Your task to perform on an android device: Play the latest video from the Washington Post Image 0: 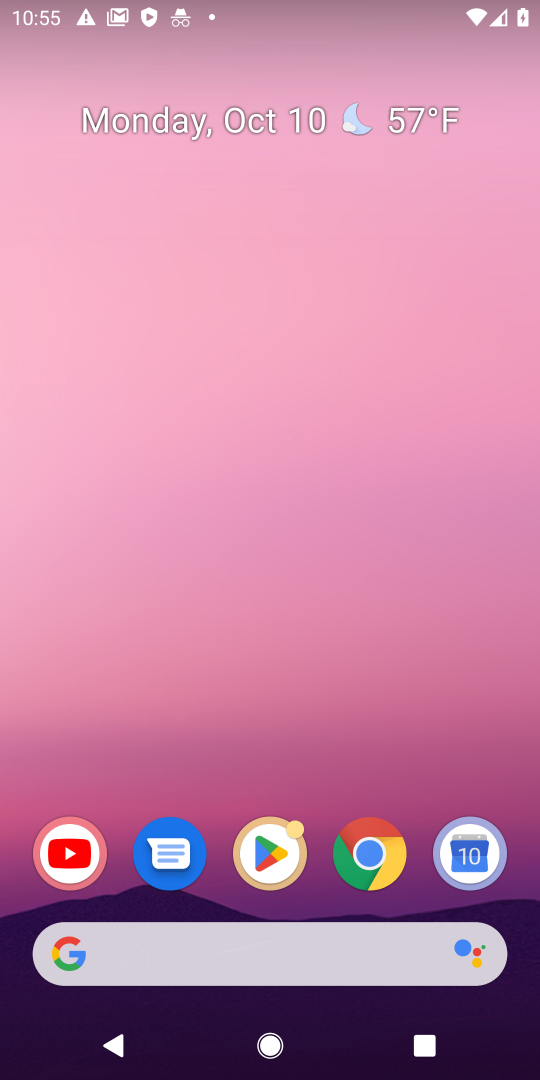
Step 0: press home button
Your task to perform on an android device: Play the latest video from the Washington Post Image 1: 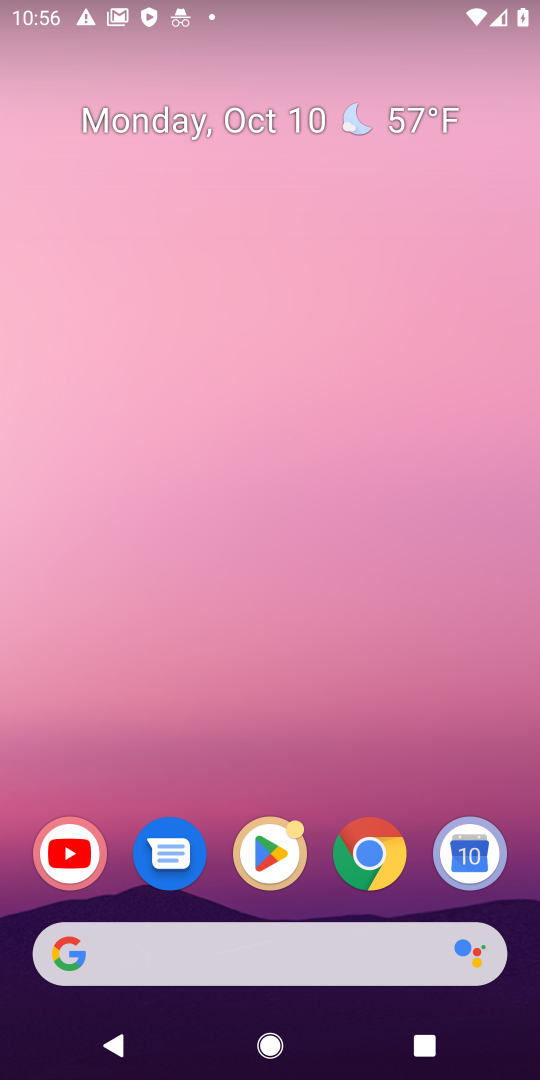
Step 1: click (262, 956)
Your task to perform on an android device: Play the latest video from the Washington Post Image 2: 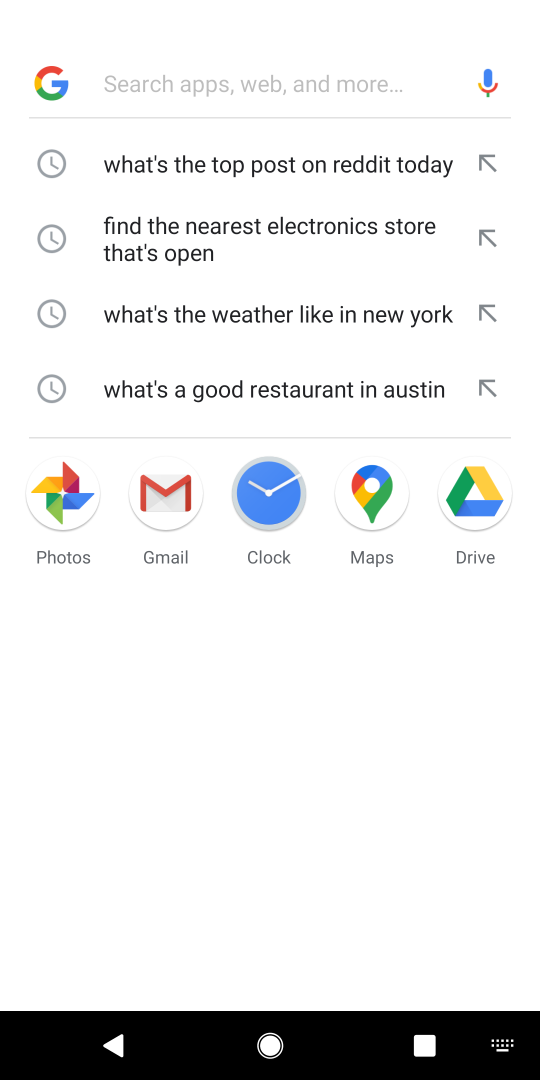
Step 2: type "Play the latest video from the Washington Post"
Your task to perform on an android device: Play the latest video from the Washington Post Image 3: 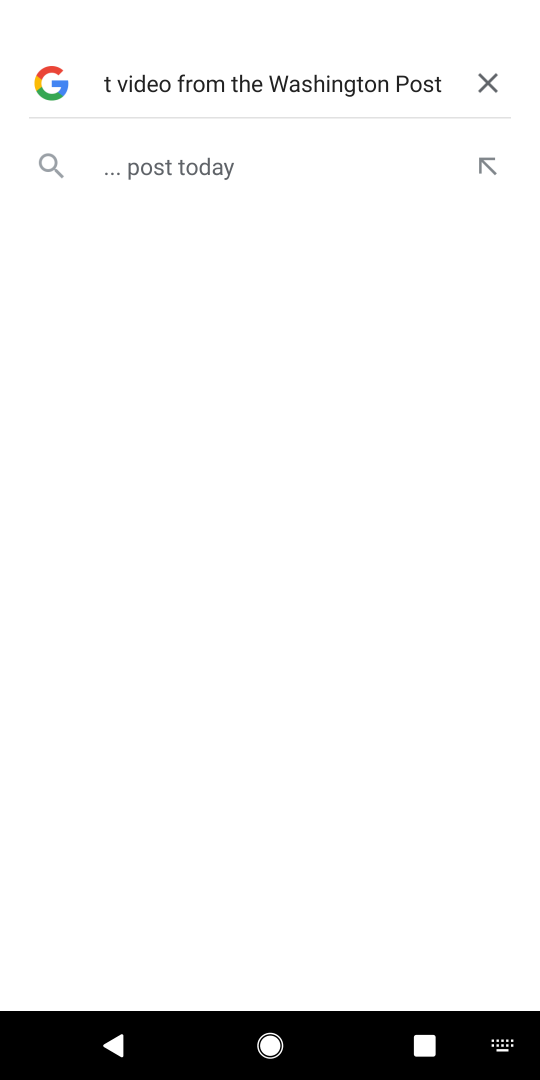
Step 3: press enter
Your task to perform on an android device: Play the latest video from the Washington Post Image 4: 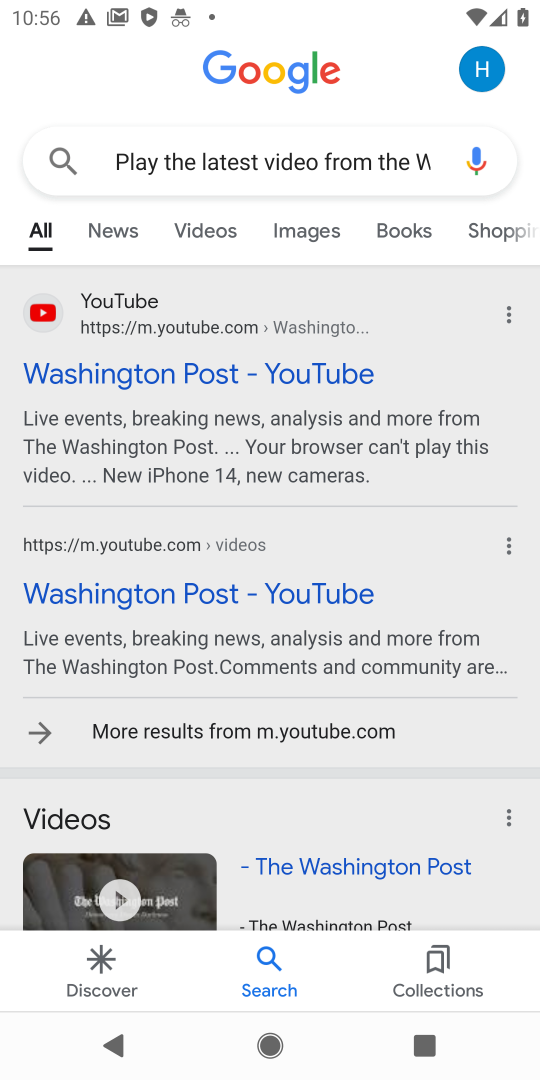
Step 4: drag from (383, 749) to (388, 434)
Your task to perform on an android device: Play the latest video from the Washington Post Image 5: 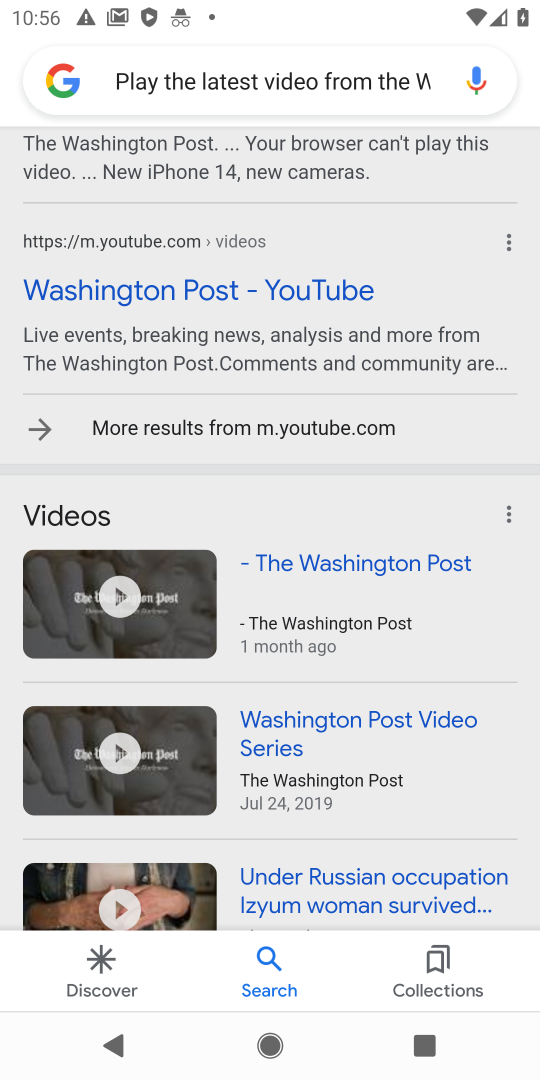
Step 5: click (294, 569)
Your task to perform on an android device: Play the latest video from the Washington Post Image 6: 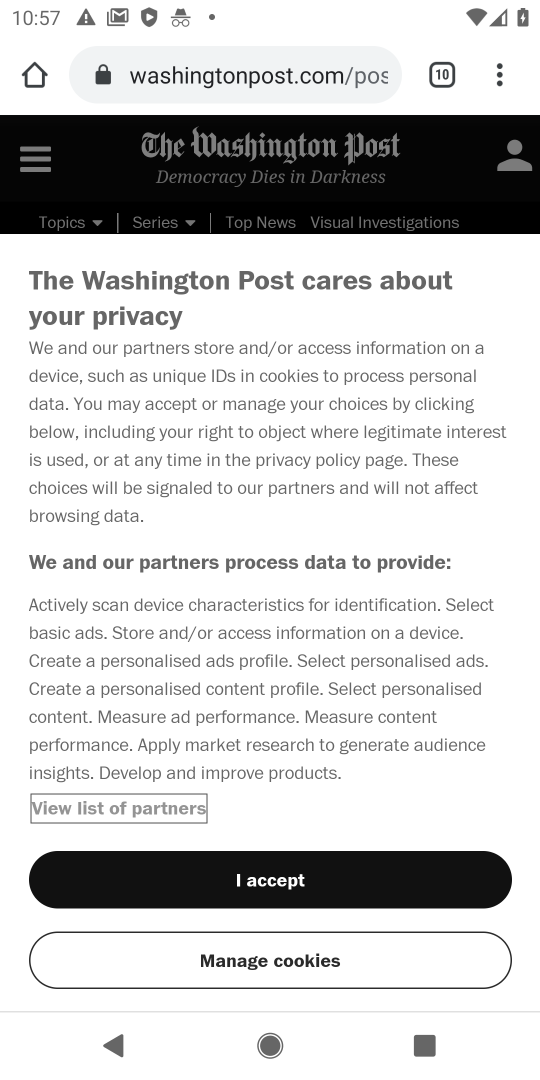
Step 6: click (348, 879)
Your task to perform on an android device: Play the latest video from the Washington Post Image 7: 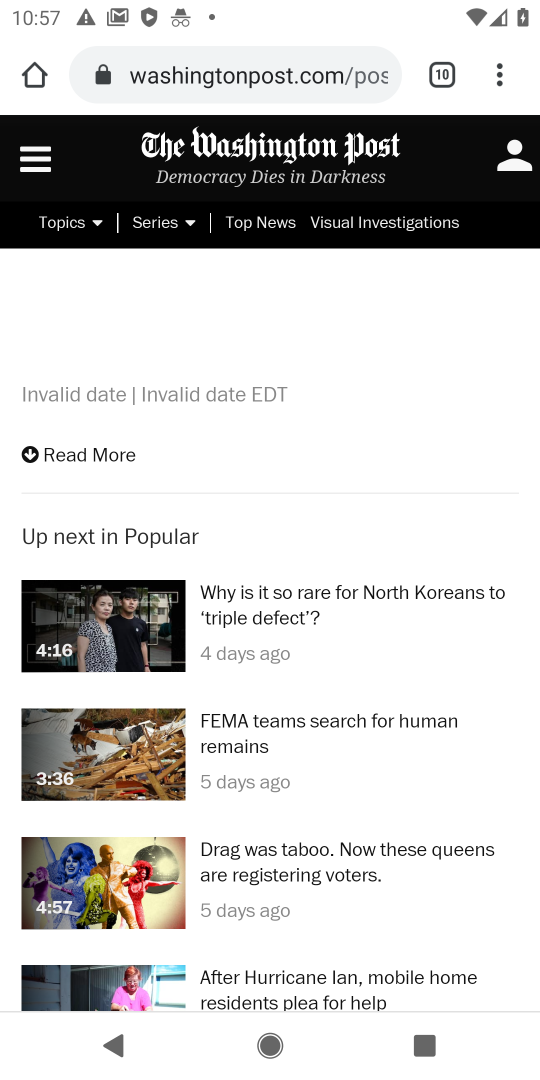
Step 7: task complete